Your task to perform on an android device: Open Google Chrome and click the shortcut for Amazon.com Image 0: 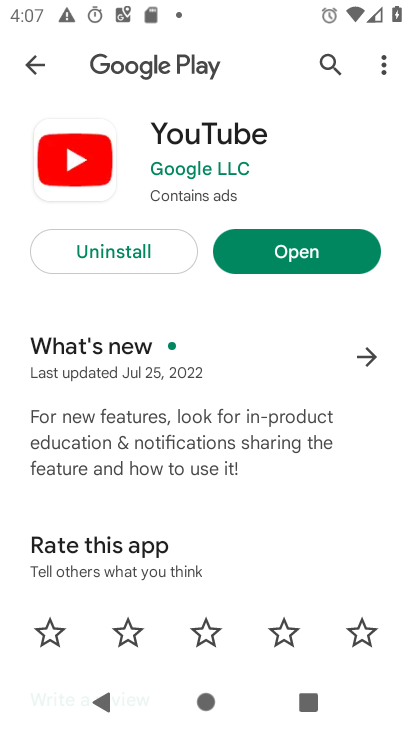
Step 0: press home button
Your task to perform on an android device: Open Google Chrome and click the shortcut for Amazon.com Image 1: 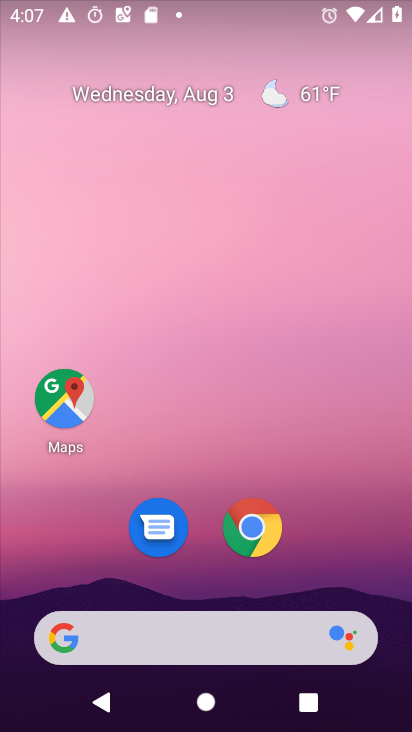
Step 1: drag from (312, 564) to (334, 105)
Your task to perform on an android device: Open Google Chrome and click the shortcut for Amazon.com Image 2: 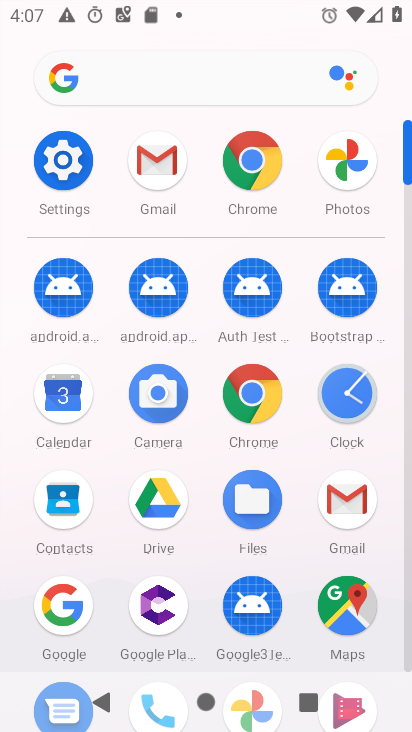
Step 2: click (259, 391)
Your task to perform on an android device: Open Google Chrome and click the shortcut for Amazon.com Image 3: 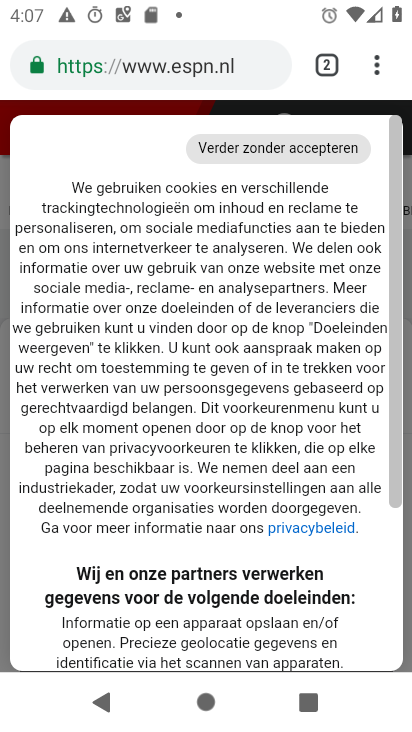
Step 3: drag from (377, 64) to (250, 113)
Your task to perform on an android device: Open Google Chrome and click the shortcut for Amazon.com Image 4: 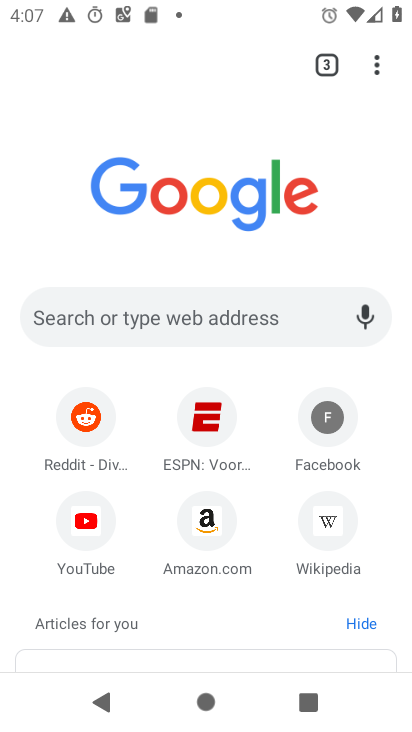
Step 4: click (208, 530)
Your task to perform on an android device: Open Google Chrome and click the shortcut for Amazon.com Image 5: 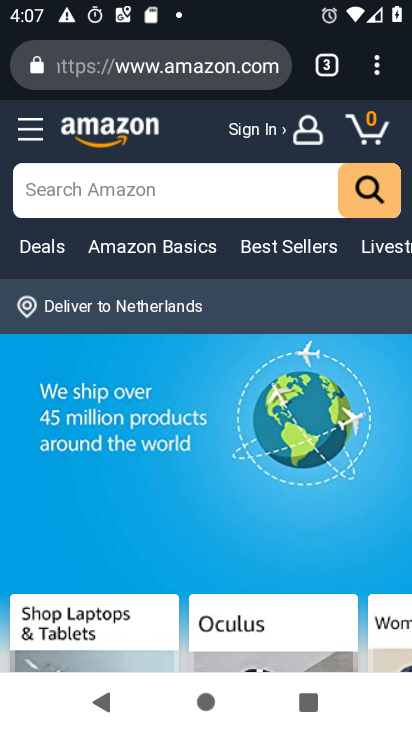
Step 5: task complete